Your task to perform on an android device: Open Amazon Image 0: 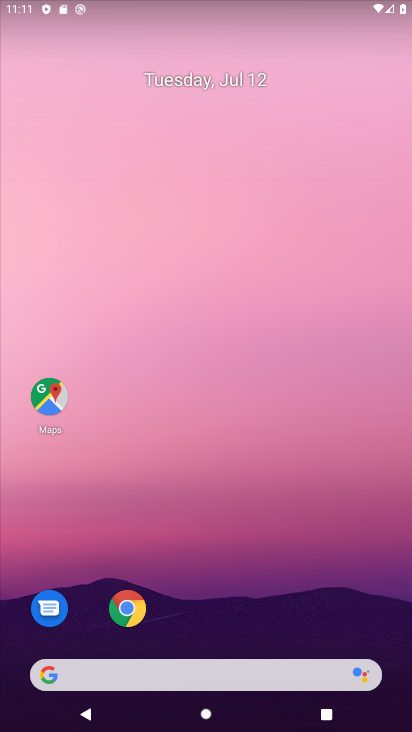
Step 0: click (121, 606)
Your task to perform on an android device: Open Amazon Image 1: 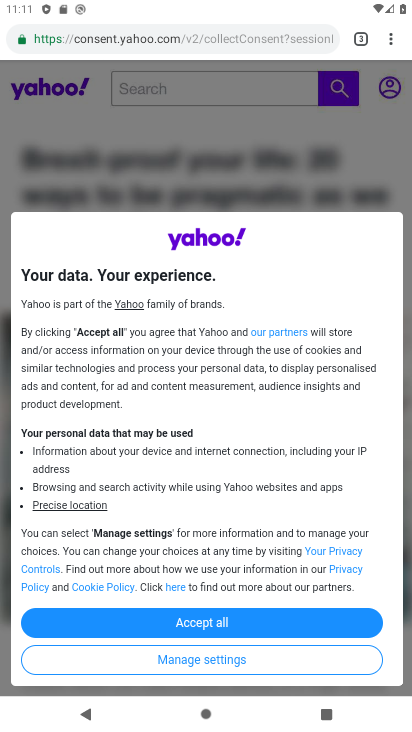
Step 1: click (354, 41)
Your task to perform on an android device: Open Amazon Image 2: 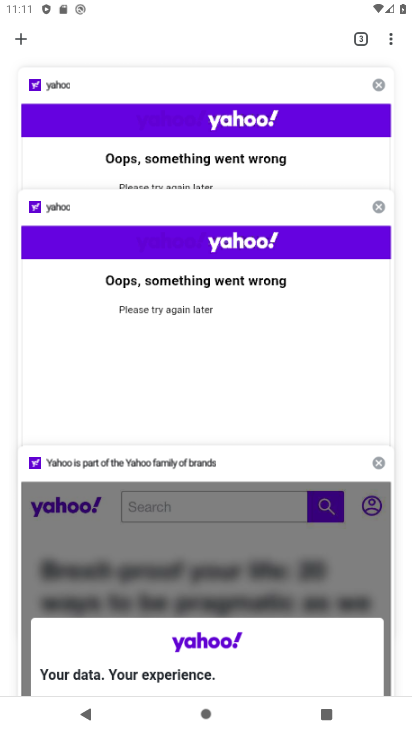
Step 2: click (35, 38)
Your task to perform on an android device: Open Amazon Image 3: 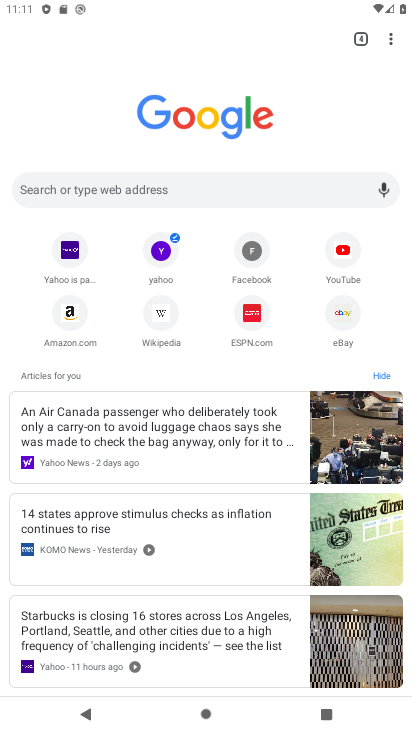
Step 3: click (74, 316)
Your task to perform on an android device: Open Amazon Image 4: 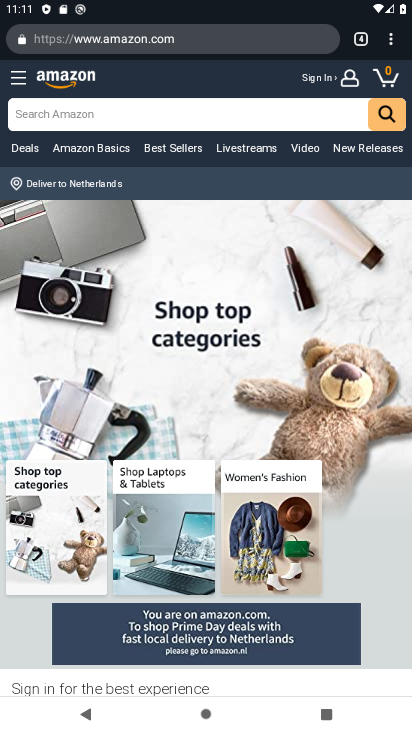
Step 4: task complete